Your task to perform on an android device: toggle priority inbox in the gmail app Image 0: 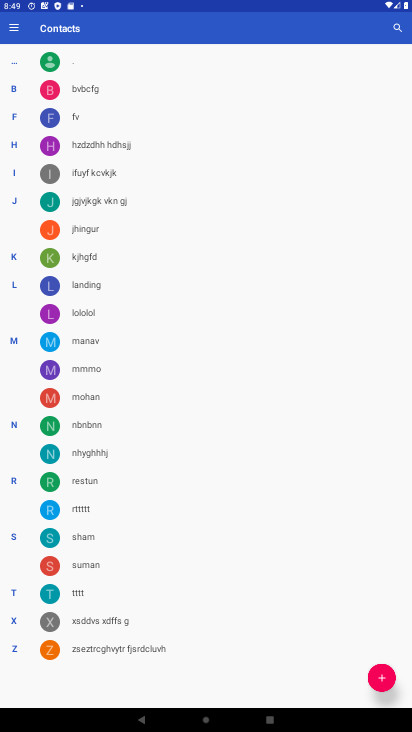
Step 0: press home button
Your task to perform on an android device: toggle priority inbox in the gmail app Image 1: 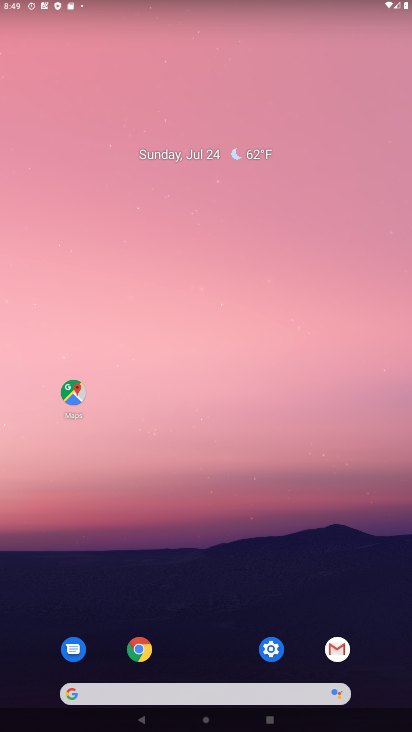
Step 1: click (326, 653)
Your task to perform on an android device: toggle priority inbox in the gmail app Image 2: 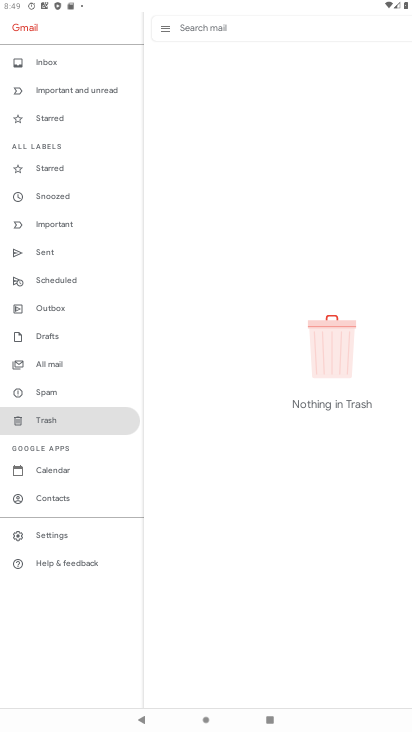
Step 2: click (49, 536)
Your task to perform on an android device: toggle priority inbox in the gmail app Image 3: 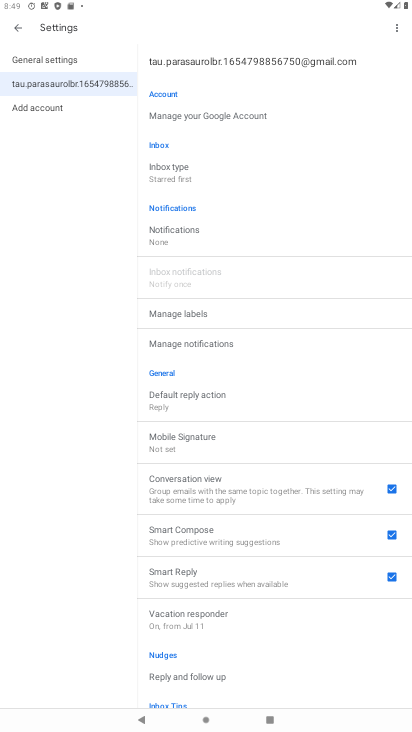
Step 3: click (186, 174)
Your task to perform on an android device: toggle priority inbox in the gmail app Image 4: 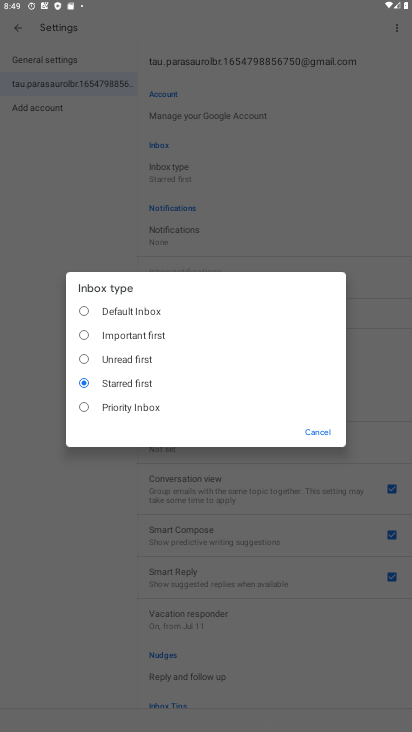
Step 4: click (126, 407)
Your task to perform on an android device: toggle priority inbox in the gmail app Image 5: 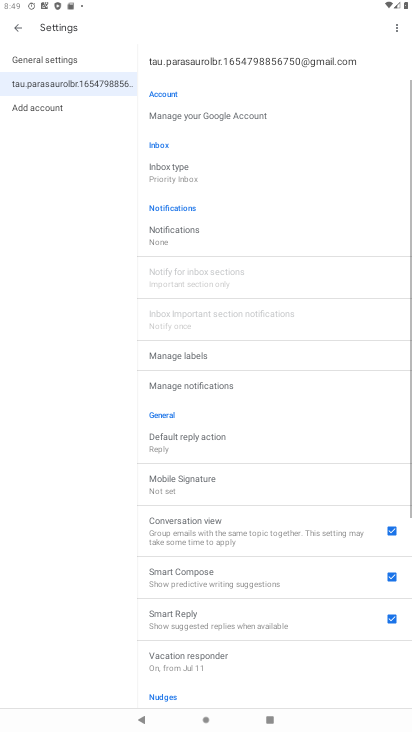
Step 5: click (180, 167)
Your task to perform on an android device: toggle priority inbox in the gmail app Image 6: 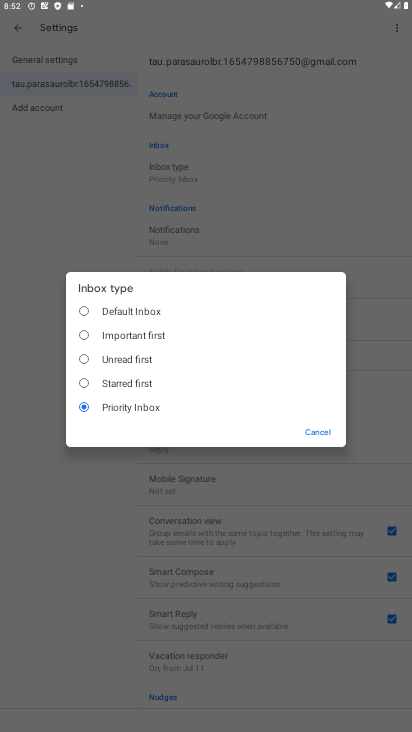
Step 6: task complete